Your task to perform on an android device: open app "Google Pay: Save, Pay, Manage" (install if not already installed) Image 0: 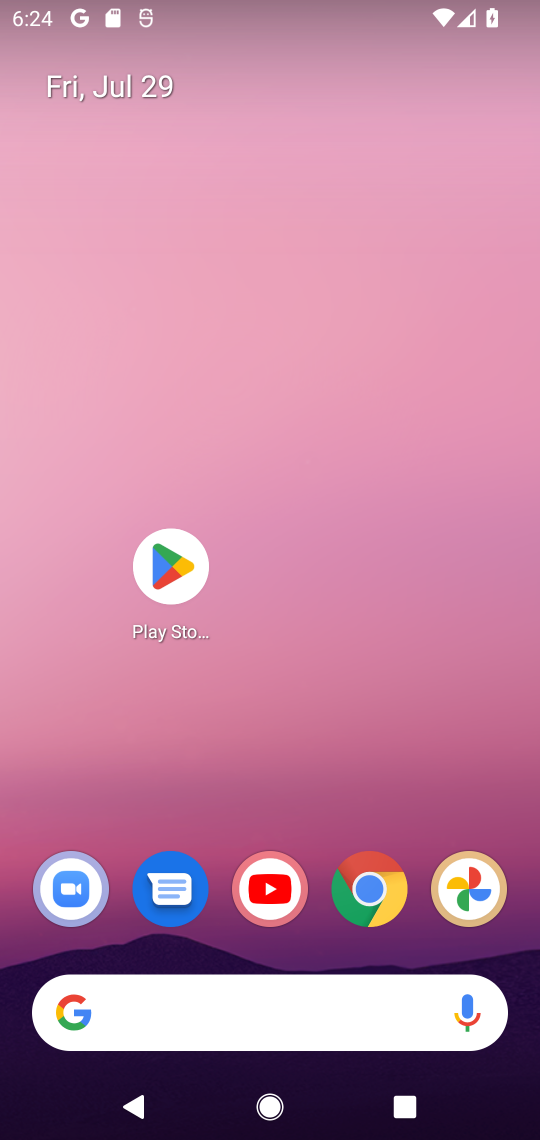
Step 0: press home button
Your task to perform on an android device: open app "Google Pay: Save, Pay, Manage" (install if not already installed) Image 1: 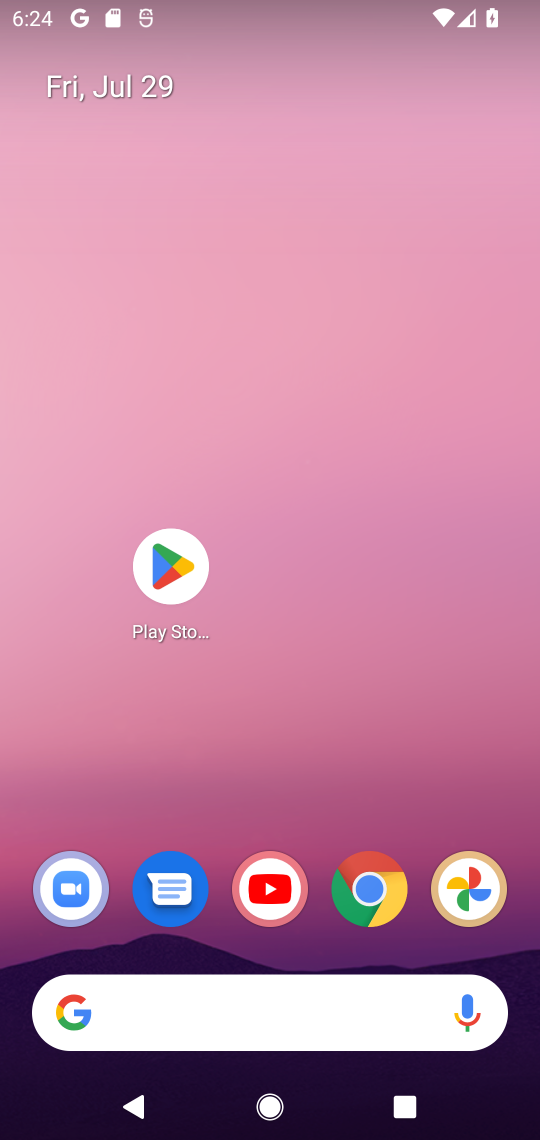
Step 1: click (150, 566)
Your task to perform on an android device: open app "Google Pay: Save, Pay, Manage" (install if not already installed) Image 2: 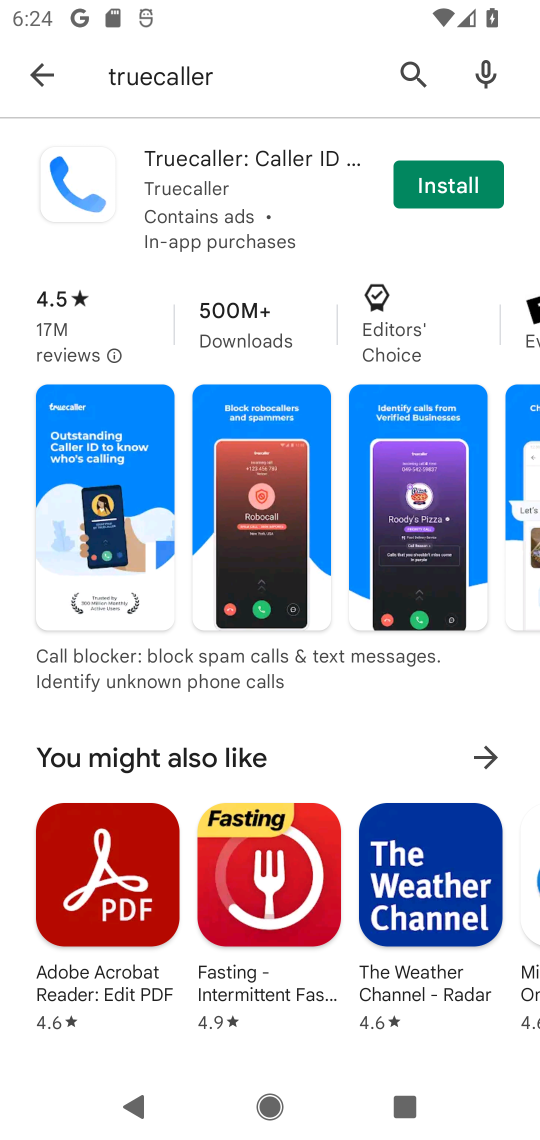
Step 2: click (405, 75)
Your task to perform on an android device: open app "Google Pay: Save, Pay, Manage" (install if not already installed) Image 3: 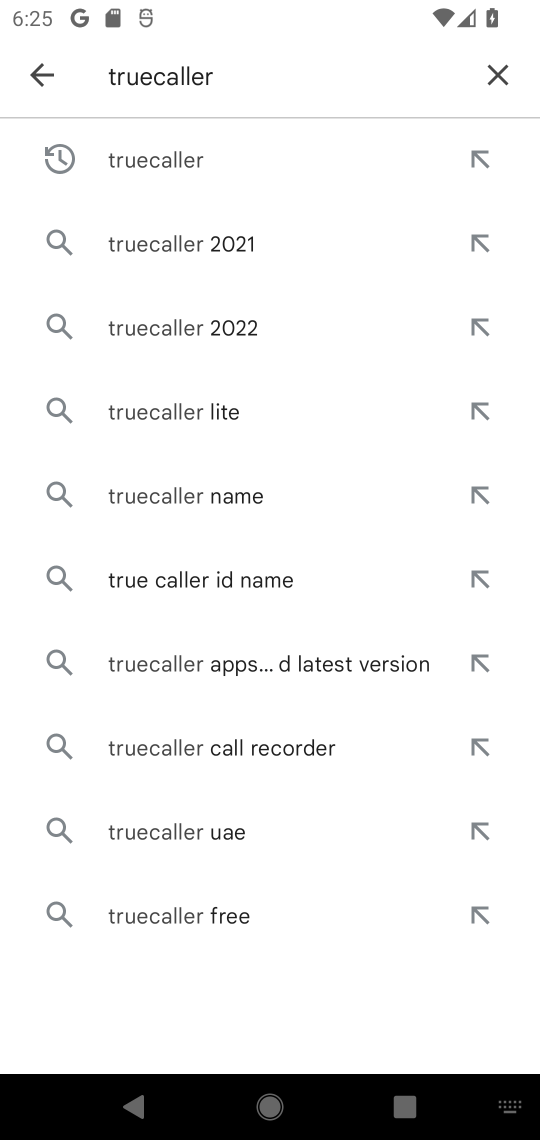
Step 3: click (498, 63)
Your task to perform on an android device: open app "Google Pay: Save, Pay, Manage" (install if not already installed) Image 4: 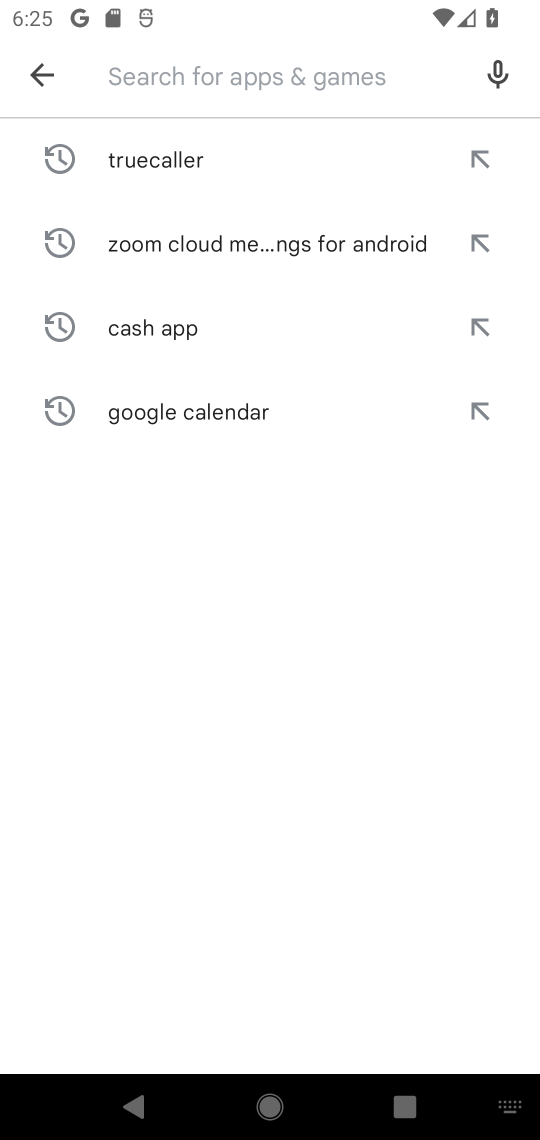
Step 4: type "Google Pay: Save, Pay, Manage"
Your task to perform on an android device: open app "Google Pay: Save, Pay, Manage" (install if not already installed) Image 5: 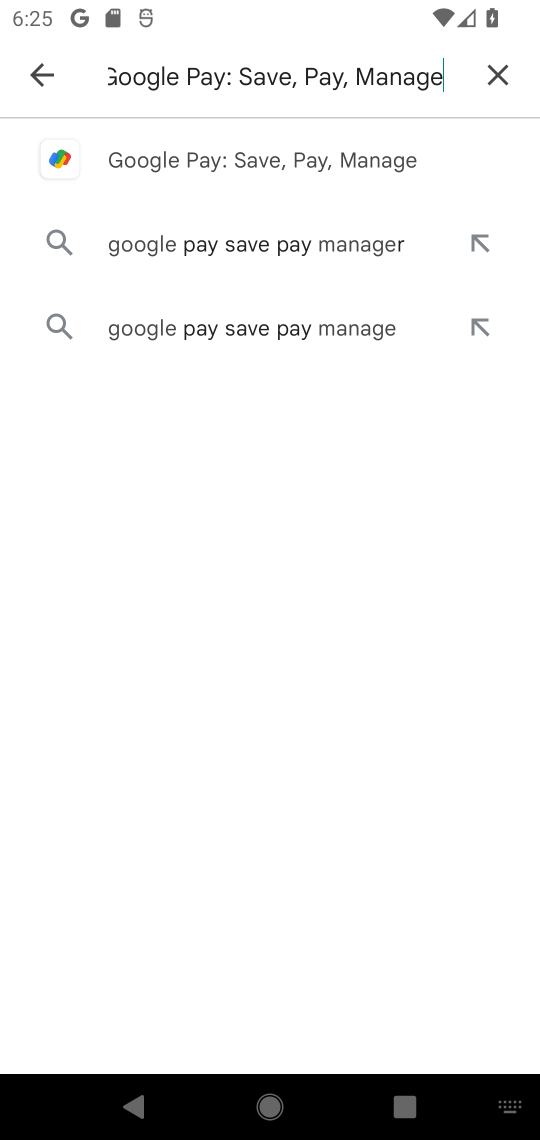
Step 5: click (316, 158)
Your task to perform on an android device: open app "Google Pay: Save, Pay, Manage" (install if not already installed) Image 6: 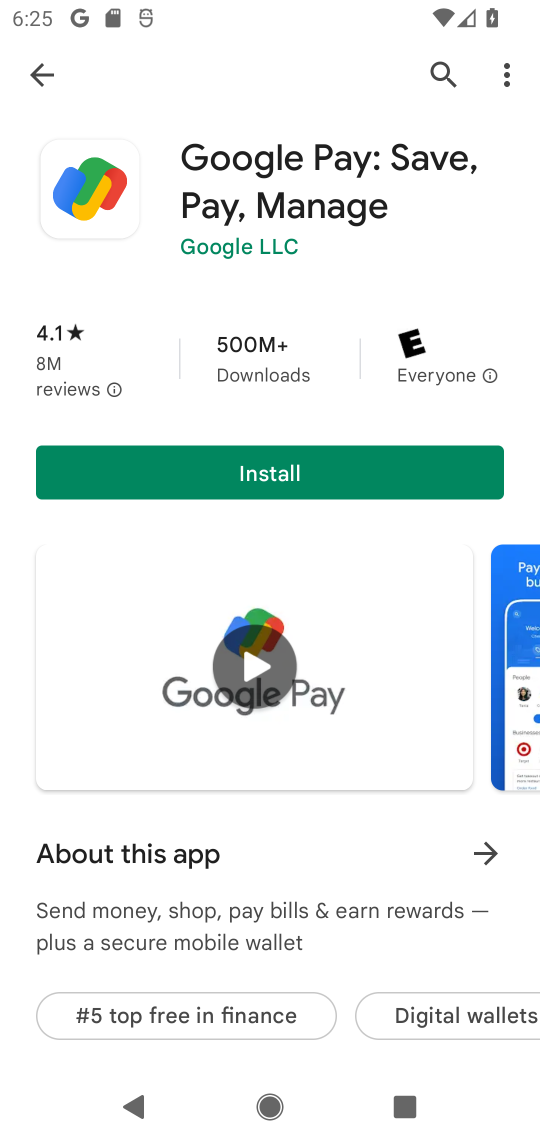
Step 6: click (285, 475)
Your task to perform on an android device: open app "Google Pay: Save, Pay, Manage" (install if not already installed) Image 7: 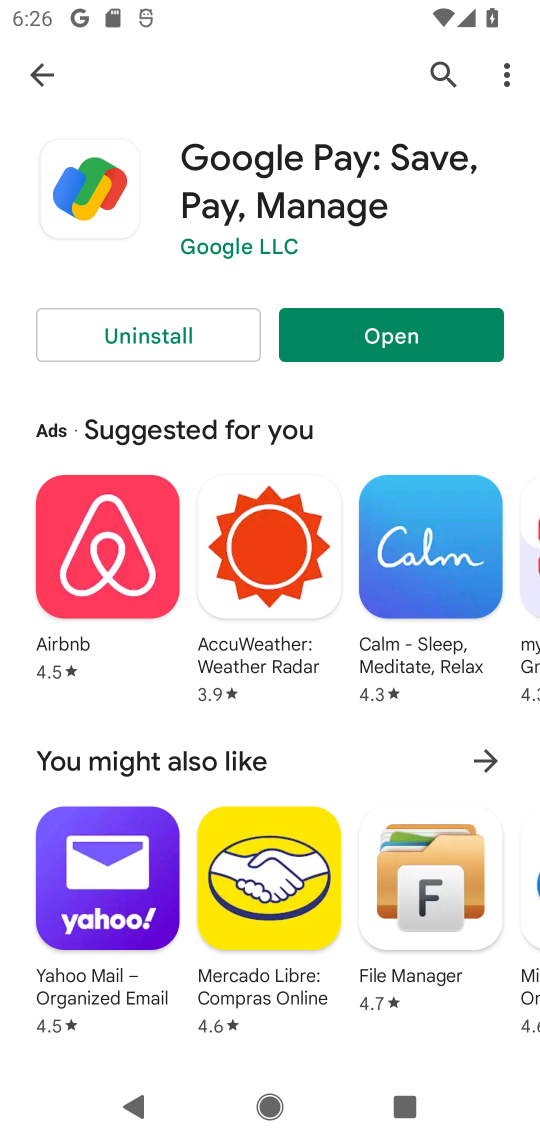
Step 7: click (427, 341)
Your task to perform on an android device: open app "Google Pay: Save, Pay, Manage" (install if not already installed) Image 8: 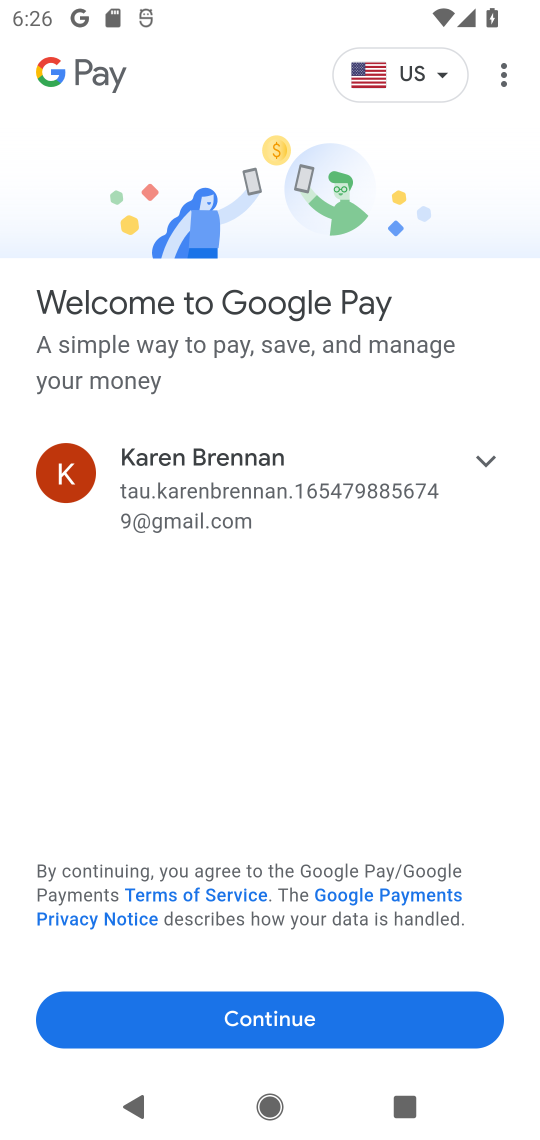
Step 8: task complete